Your task to perform on an android device: turn off wifi Image 0: 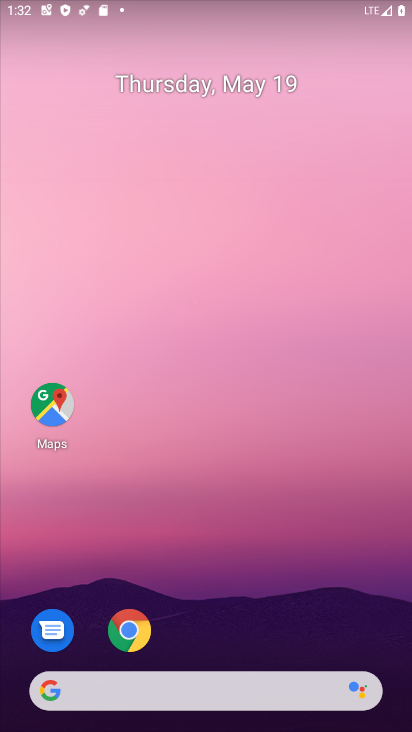
Step 0: drag from (193, 651) to (161, 4)
Your task to perform on an android device: turn off wifi Image 1: 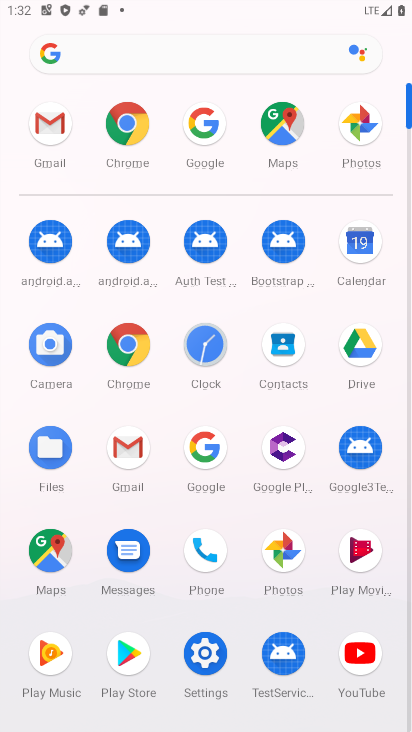
Step 1: click (207, 651)
Your task to perform on an android device: turn off wifi Image 2: 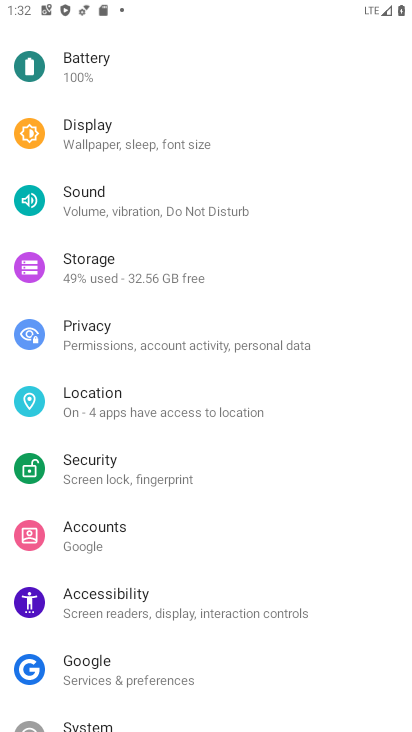
Step 2: drag from (180, 136) to (192, 577)
Your task to perform on an android device: turn off wifi Image 3: 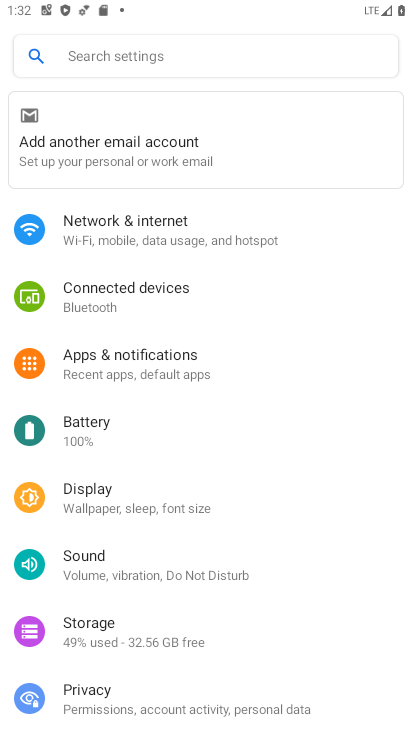
Step 3: click (86, 214)
Your task to perform on an android device: turn off wifi Image 4: 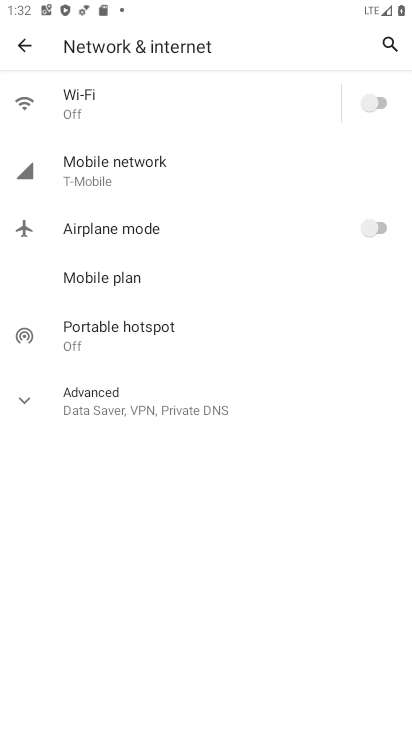
Step 4: click (143, 110)
Your task to perform on an android device: turn off wifi Image 5: 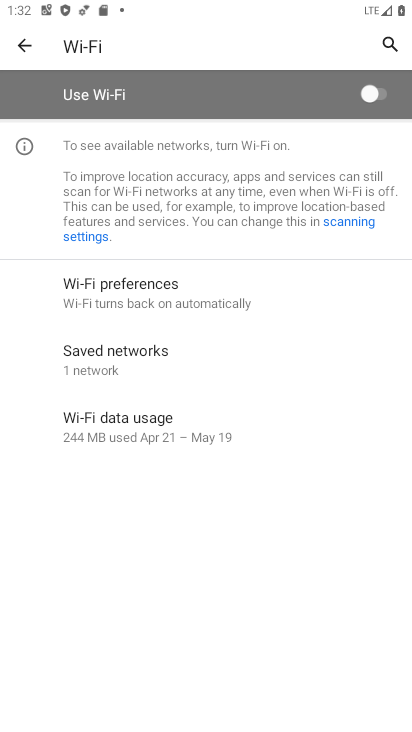
Step 5: task complete